Your task to perform on an android device: What's the latest tech news? Image 0: 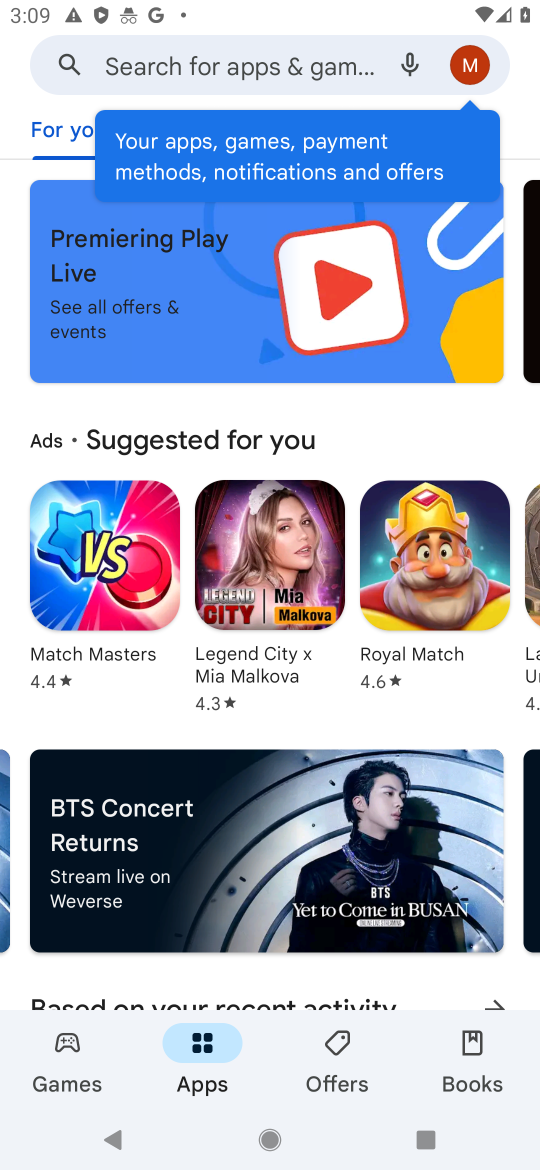
Step 0: press home button
Your task to perform on an android device: What's the latest tech news? Image 1: 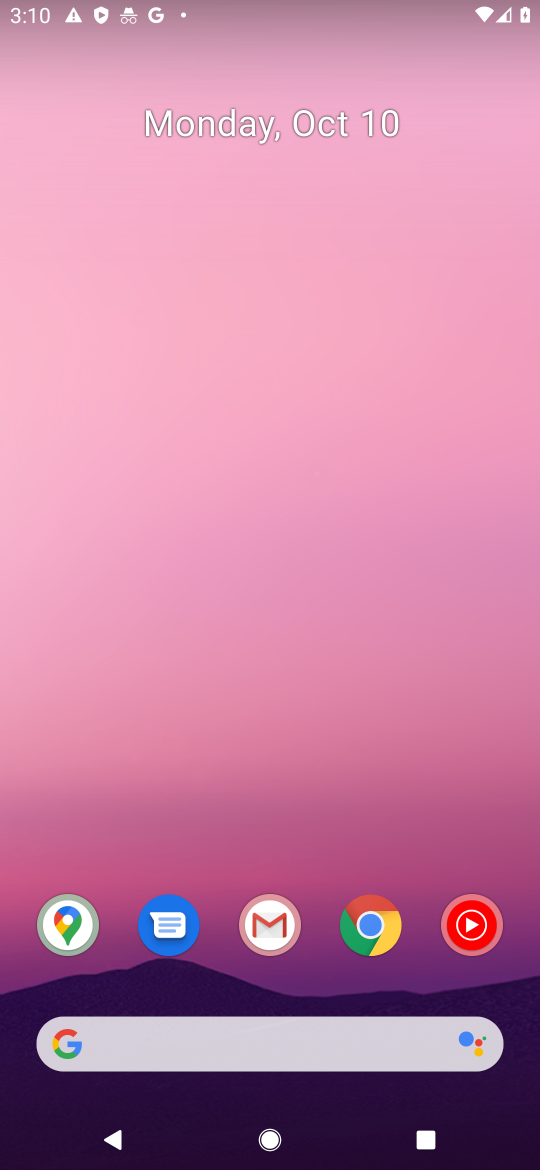
Step 1: click (373, 953)
Your task to perform on an android device: What's the latest tech news? Image 2: 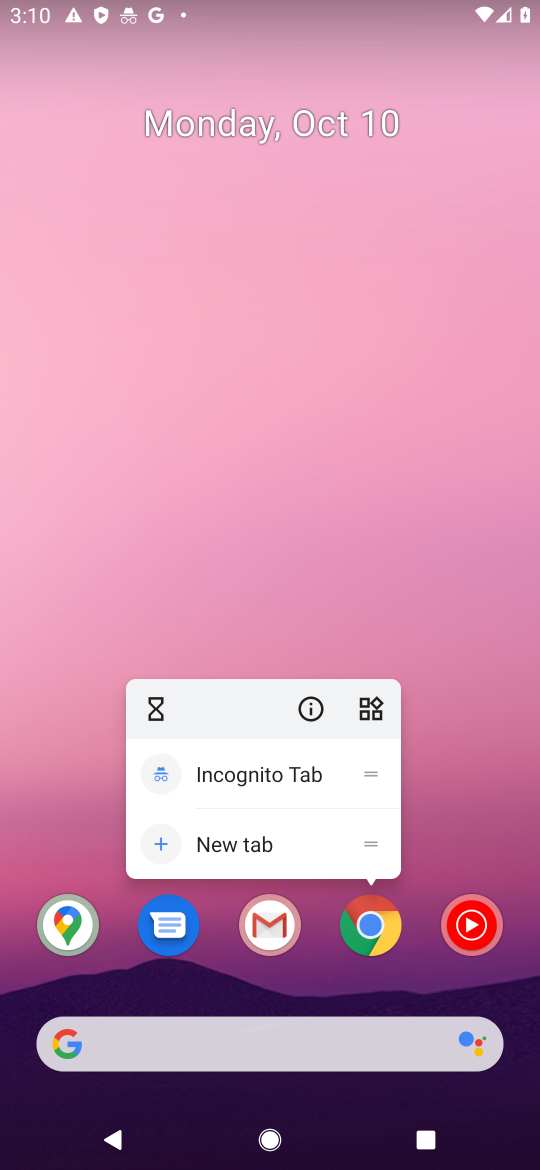
Step 2: click (373, 953)
Your task to perform on an android device: What's the latest tech news? Image 3: 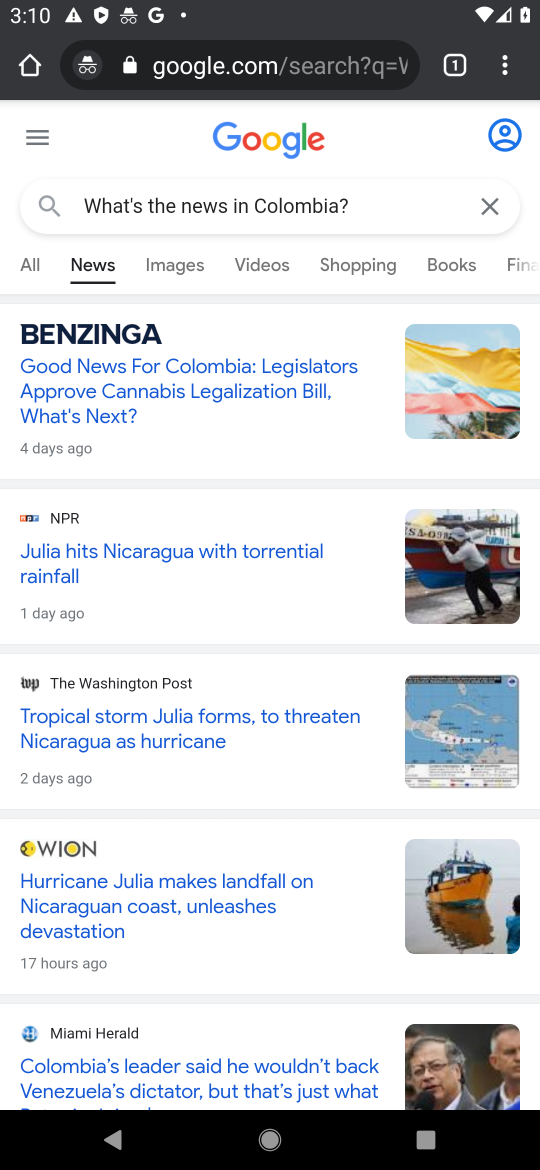
Step 3: click (369, 221)
Your task to perform on an android device: What's the latest tech news? Image 4: 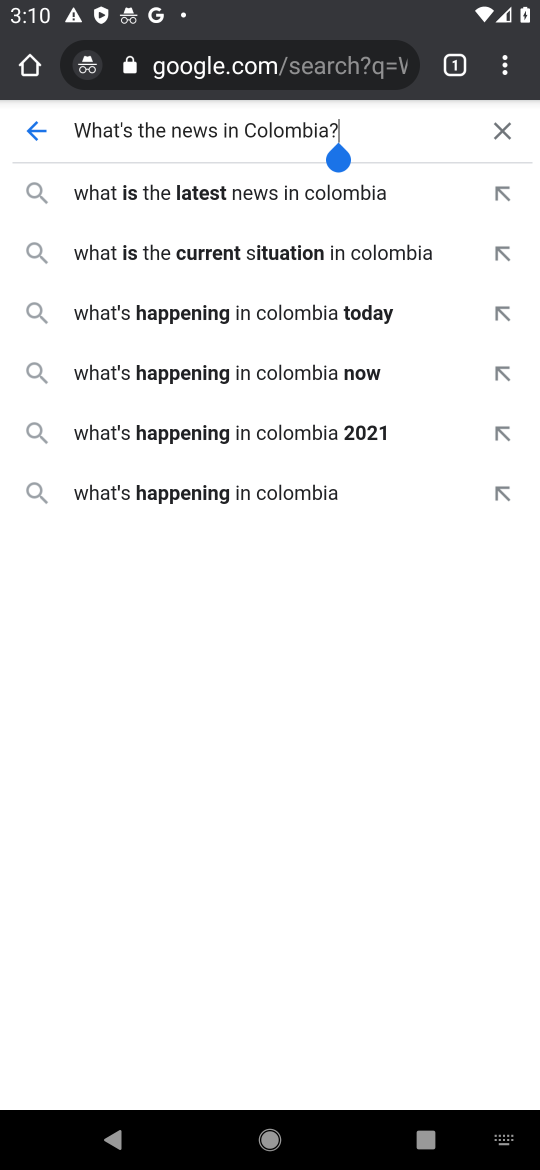
Step 4: click (502, 132)
Your task to perform on an android device: What's the latest tech news? Image 5: 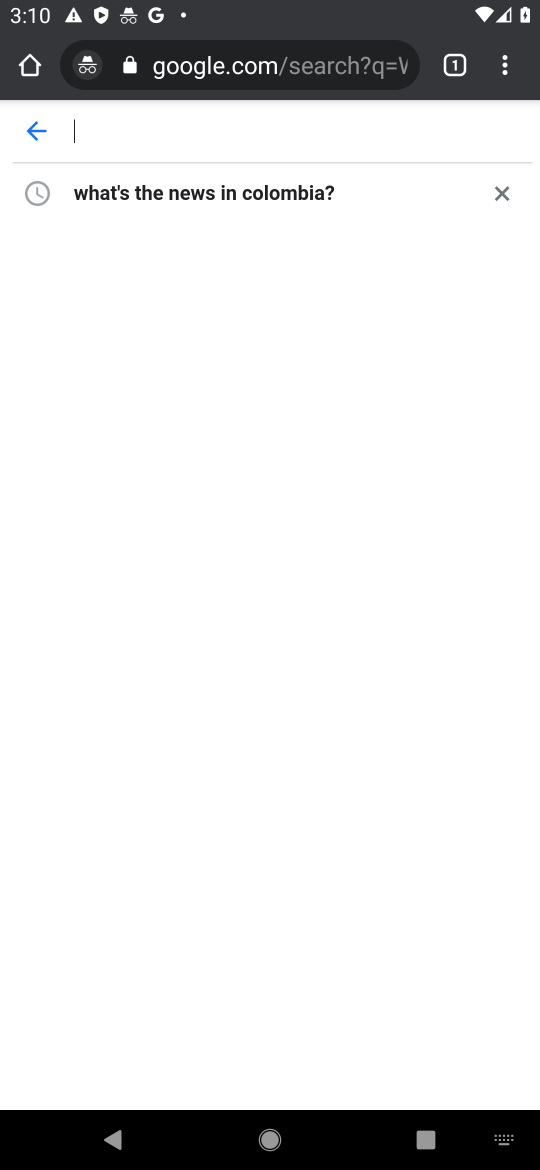
Step 5: type "What's the latest tech news?"
Your task to perform on an android device: What's the latest tech news? Image 6: 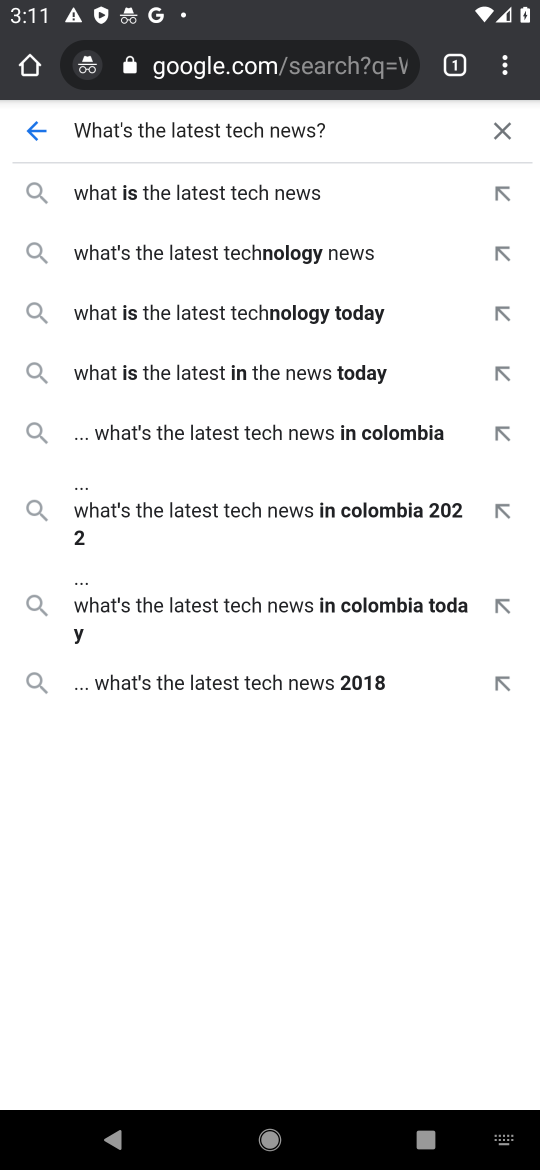
Step 6: click (257, 211)
Your task to perform on an android device: What's the latest tech news? Image 7: 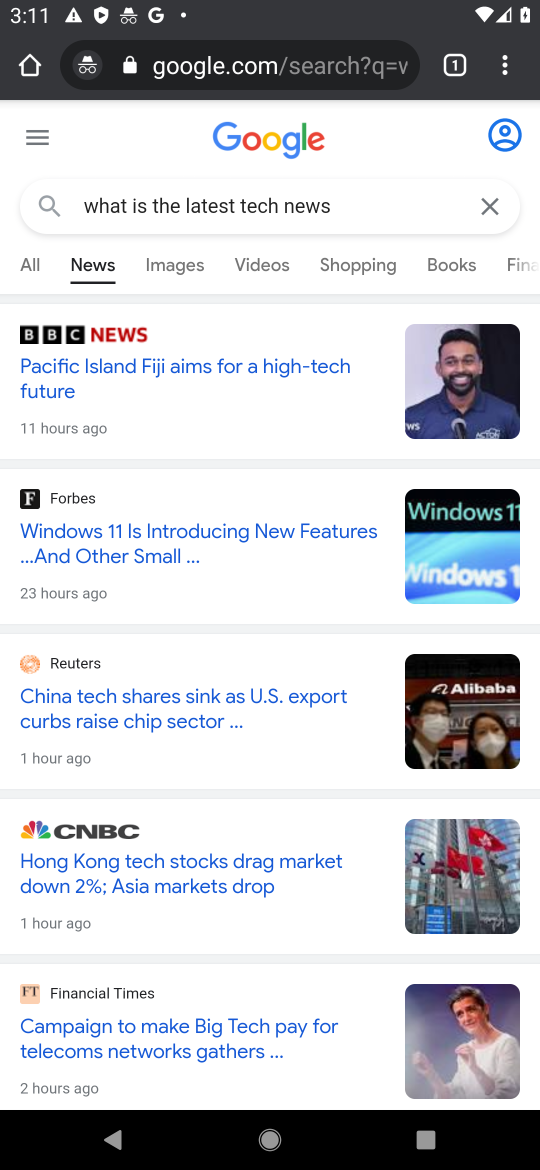
Step 7: task complete